Your task to perform on an android device: toggle wifi Image 0: 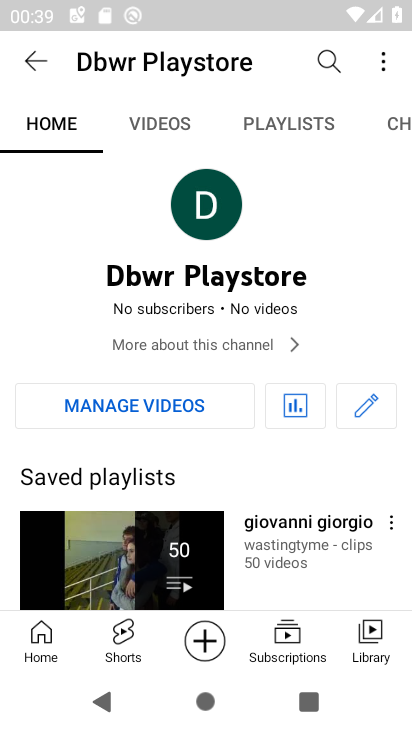
Step 0: press home button
Your task to perform on an android device: toggle wifi Image 1: 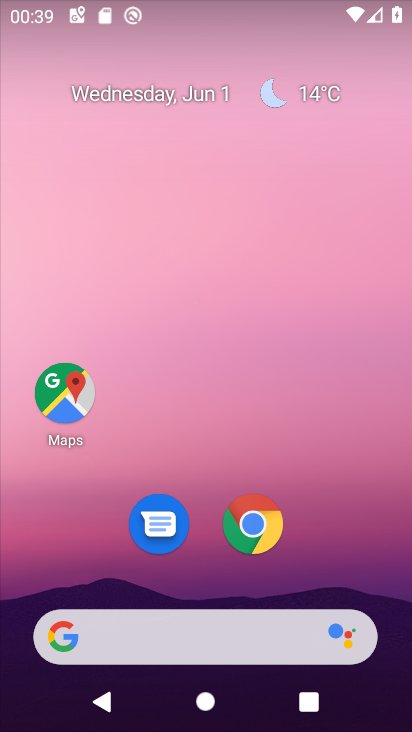
Step 1: drag from (250, 467) to (201, 43)
Your task to perform on an android device: toggle wifi Image 2: 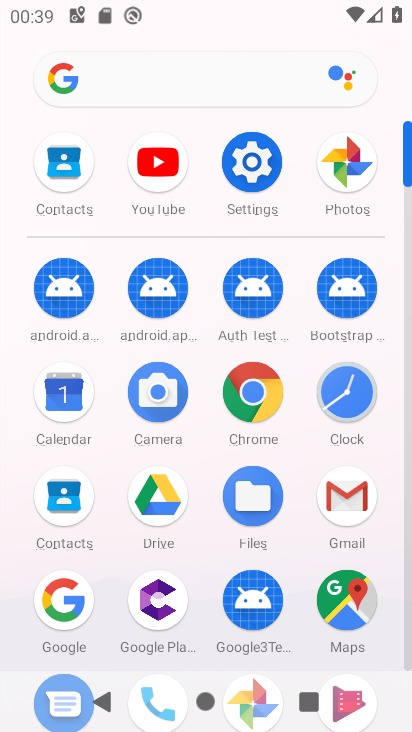
Step 2: click (248, 156)
Your task to perform on an android device: toggle wifi Image 3: 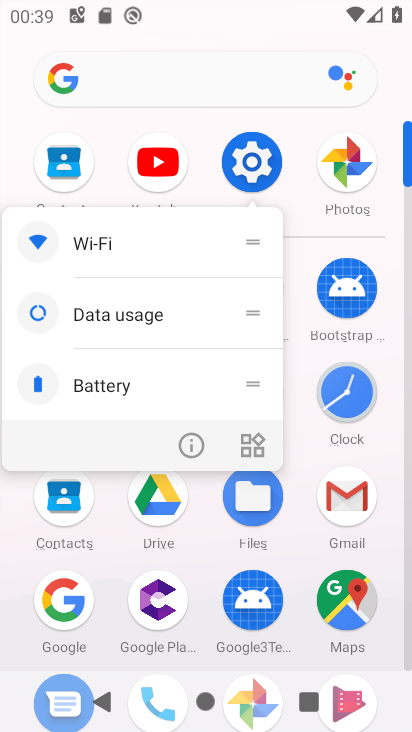
Step 3: click (248, 154)
Your task to perform on an android device: toggle wifi Image 4: 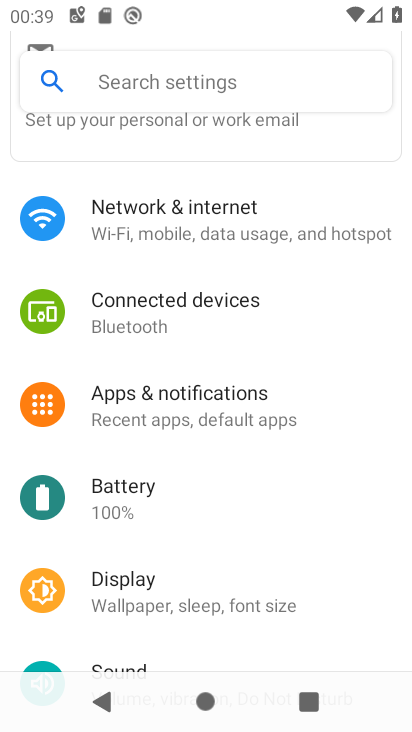
Step 4: click (230, 203)
Your task to perform on an android device: toggle wifi Image 5: 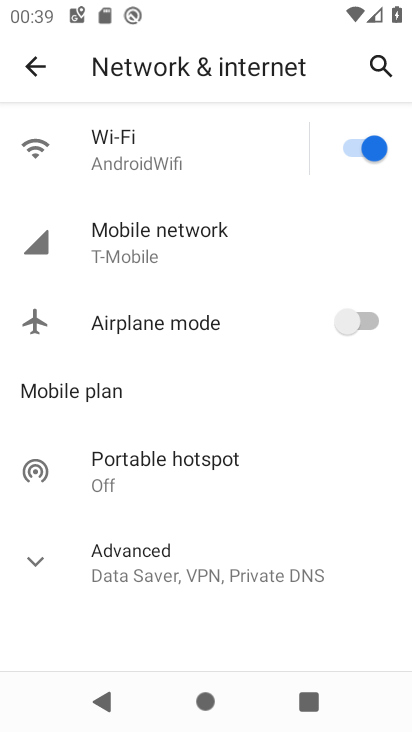
Step 5: click (356, 140)
Your task to perform on an android device: toggle wifi Image 6: 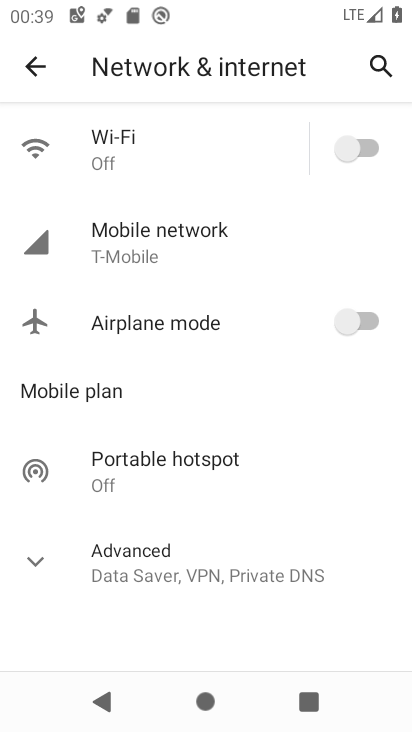
Step 6: task complete